Your task to perform on an android device: Open notification settings Image 0: 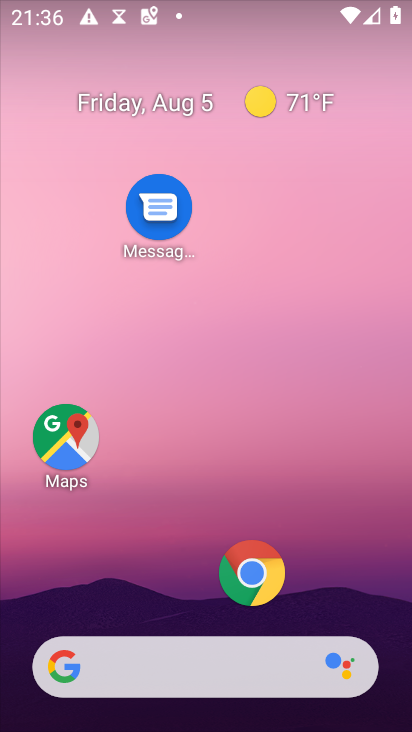
Step 0: press home button
Your task to perform on an android device: Open notification settings Image 1: 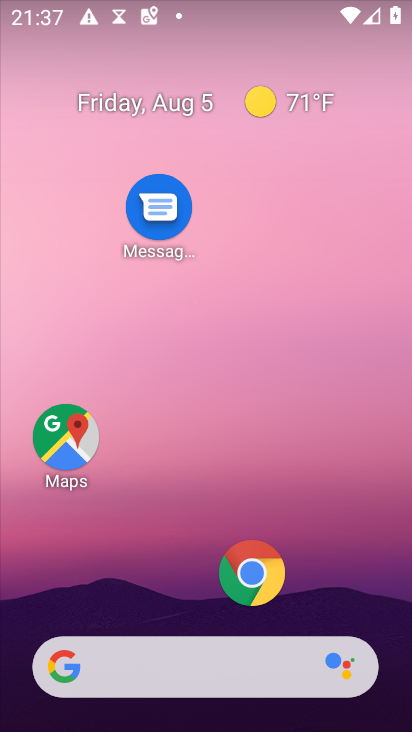
Step 1: drag from (185, 600) to (247, 149)
Your task to perform on an android device: Open notification settings Image 2: 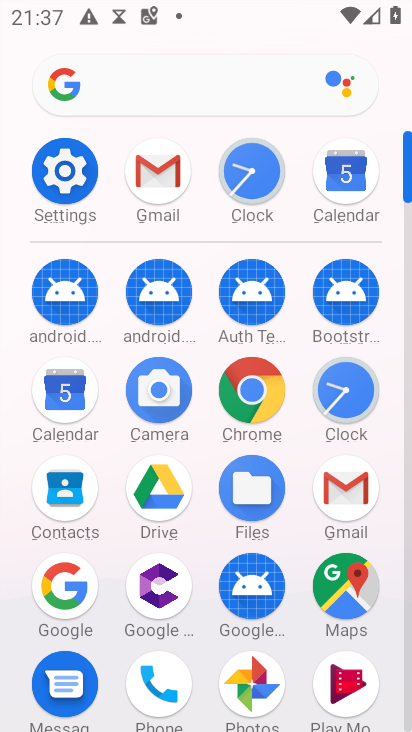
Step 2: click (63, 172)
Your task to perform on an android device: Open notification settings Image 3: 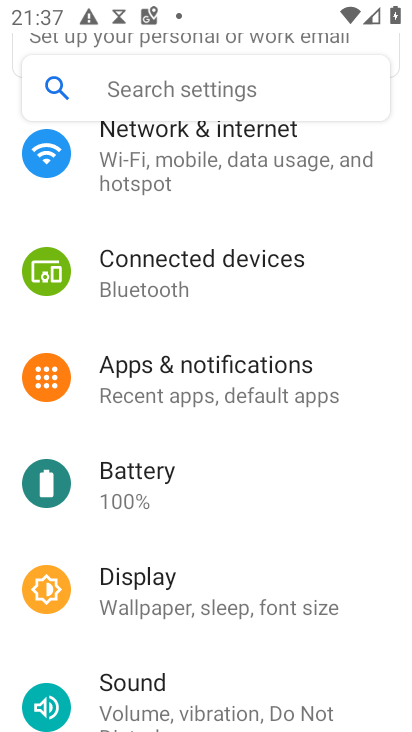
Step 3: click (217, 372)
Your task to perform on an android device: Open notification settings Image 4: 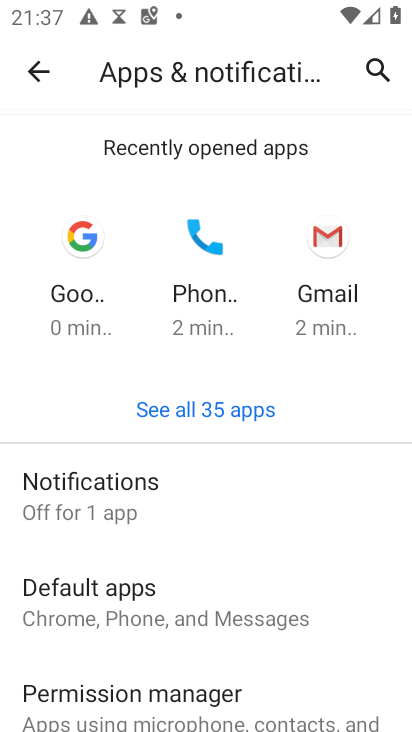
Step 4: click (183, 503)
Your task to perform on an android device: Open notification settings Image 5: 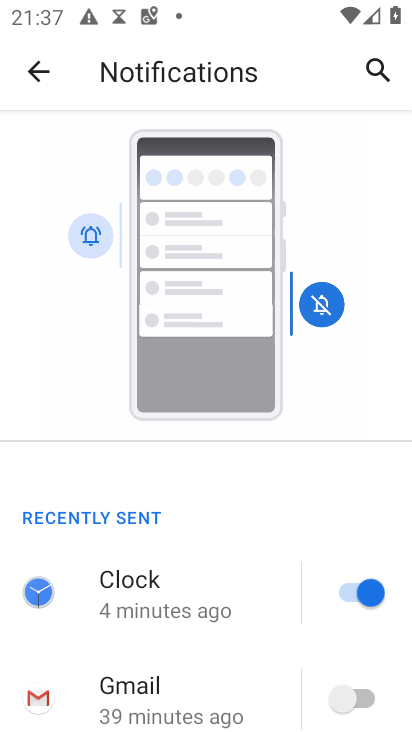
Step 5: drag from (229, 660) to (220, 245)
Your task to perform on an android device: Open notification settings Image 6: 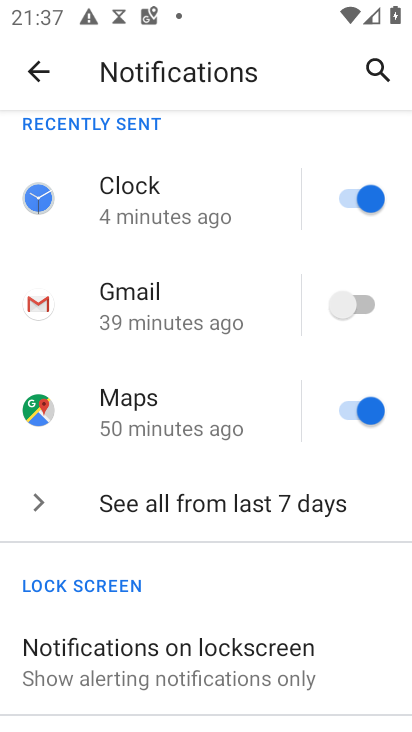
Step 6: drag from (213, 660) to (231, 338)
Your task to perform on an android device: Open notification settings Image 7: 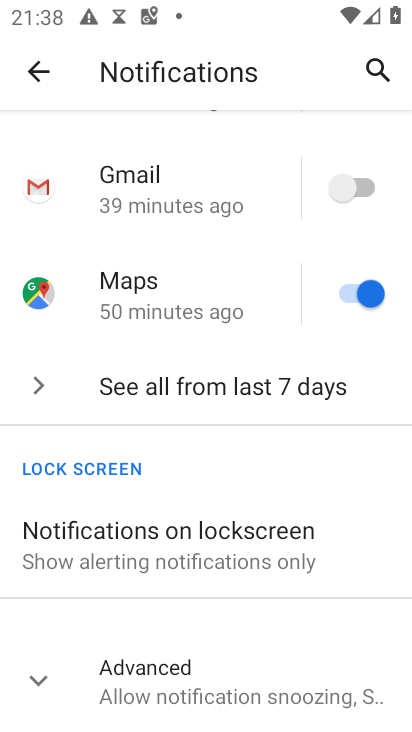
Step 7: click (36, 688)
Your task to perform on an android device: Open notification settings Image 8: 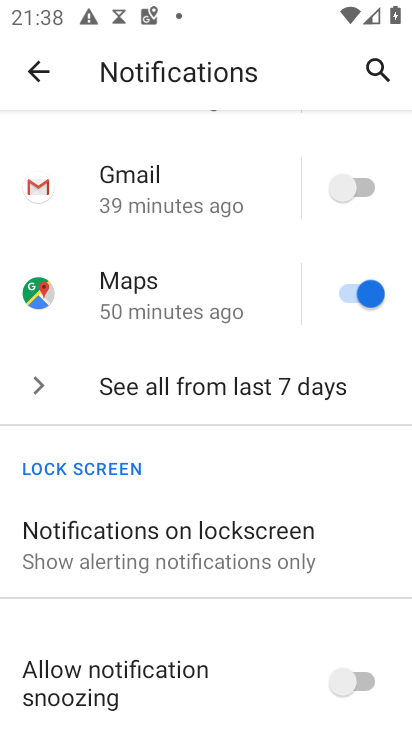
Step 8: task complete